Your task to perform on an android device: Search for energizer triple a on amazon.com, select the first entry, and add it to the cart. Image 0: 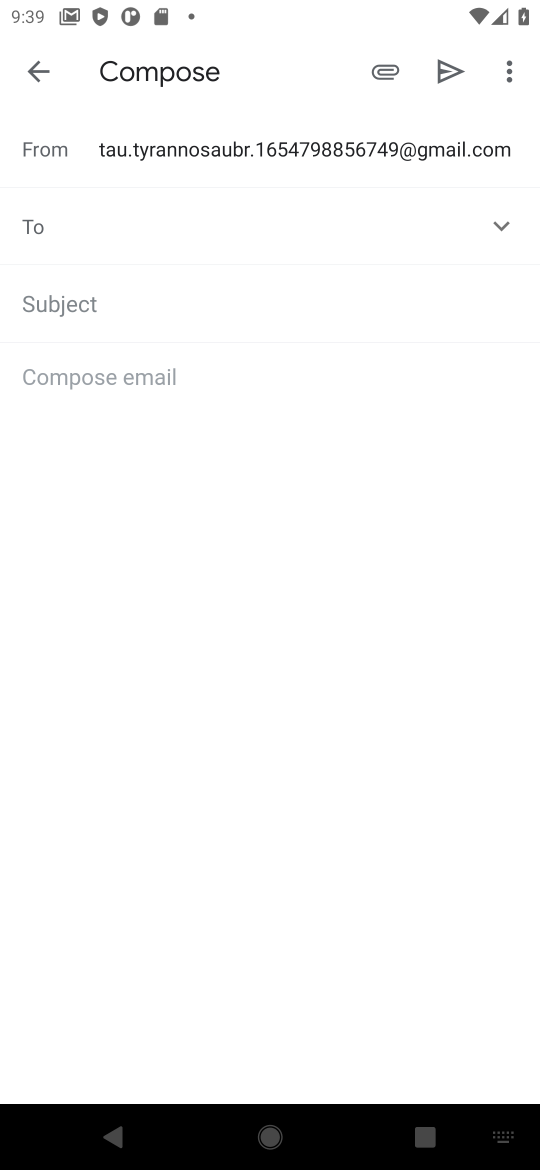
Step 0: press home button
Your task to perform on an android device: Search for energizer triple a on amazon.com, select the first entry, and add it to the cart. Image 1: 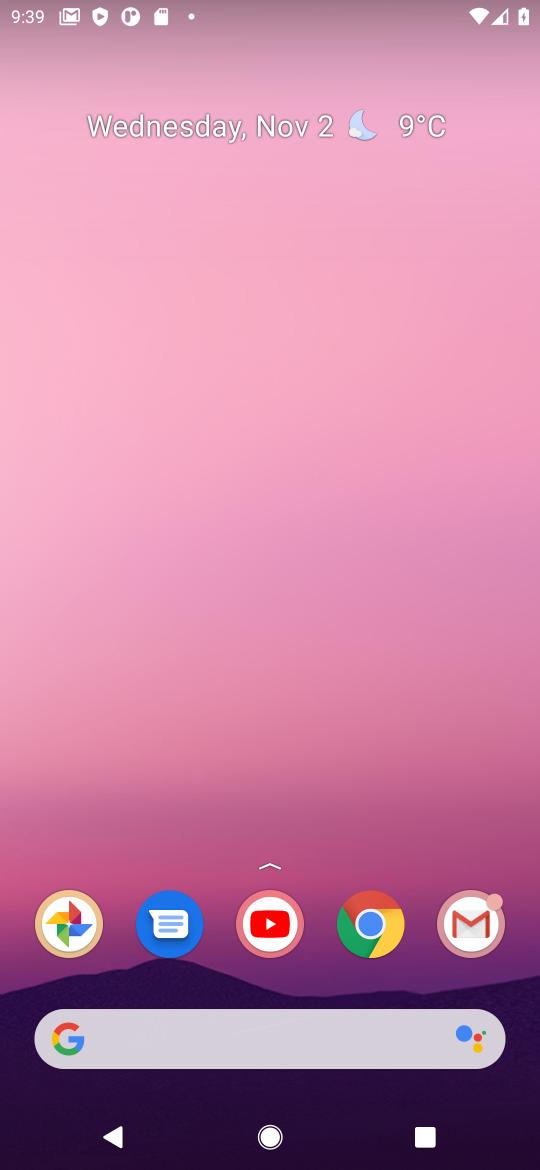
Step 1: click (389, 925)
Your task to perform on an android device: Search for energizer triple a on amazon.com, select the first entry, and add it to the cart. Image 2: 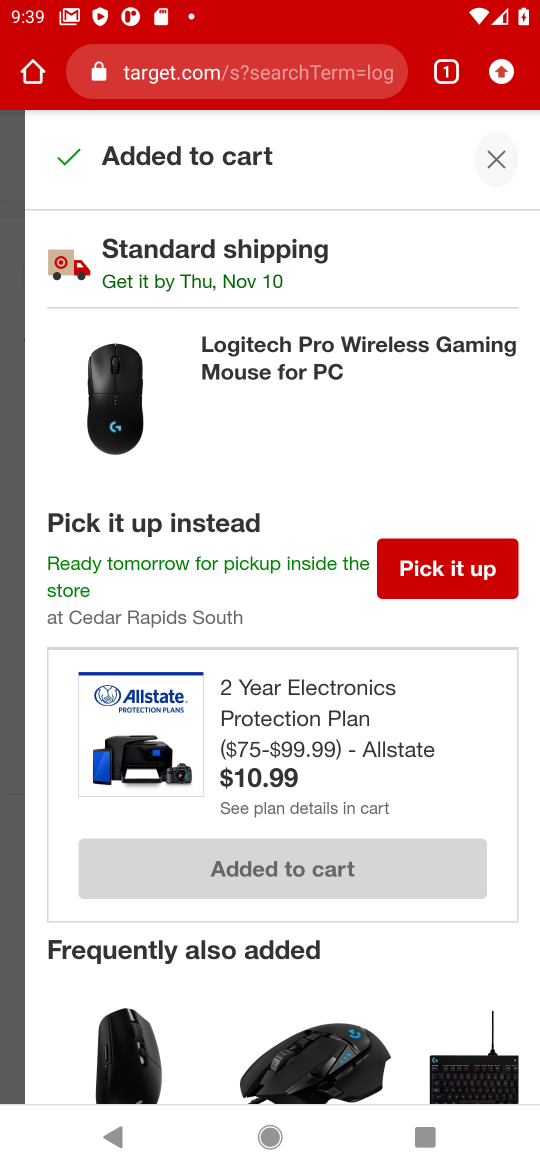
Step 2: click (138, 76)
Your task to perform on an android device: Search for energizer triple a on amazon.com, select the first entry, and add it to the cart. Image 3: 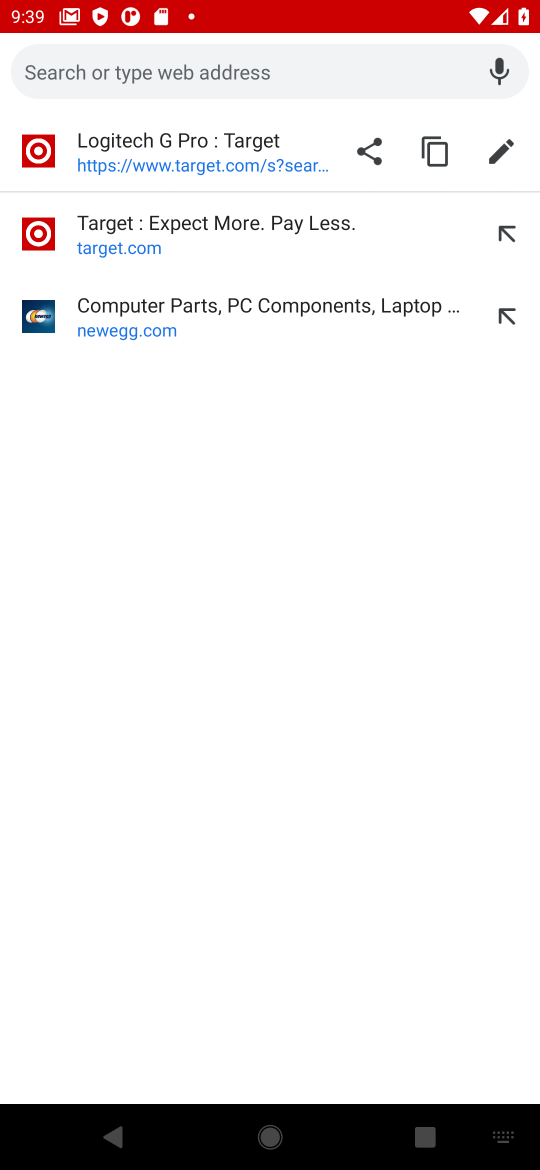
Step 3: type "amazon"
Your task to perform on an android device: Search for energizer triple a on amazon.com, select the first entry, and add it to the cart. Image 4: 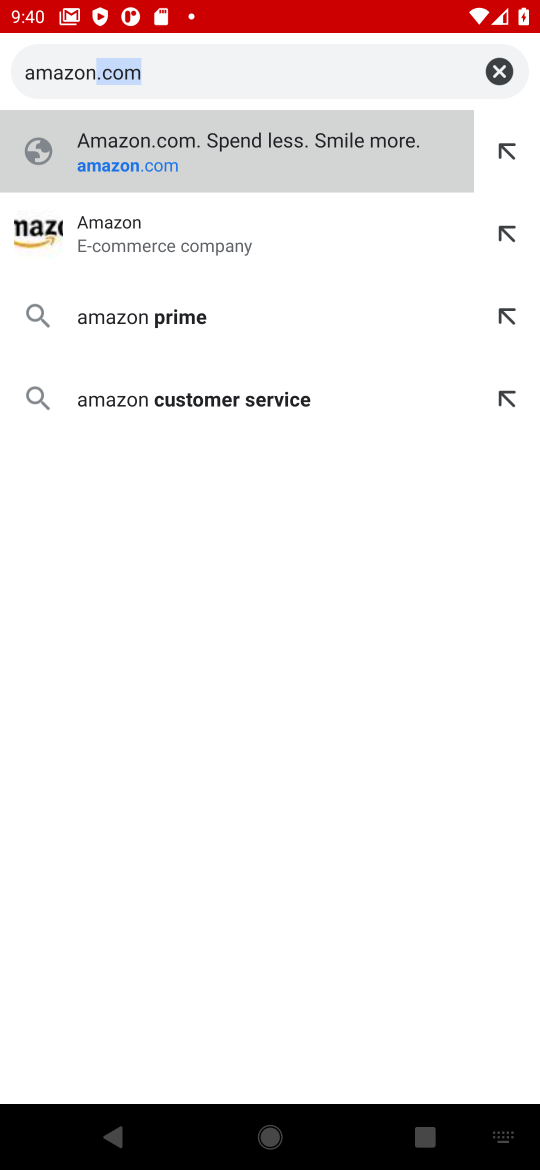
Step 4: type ""
Your task to perform on an android device: Search for energizer triple a on amazon.com, select the first entry, and add it to the cart. Image 5: 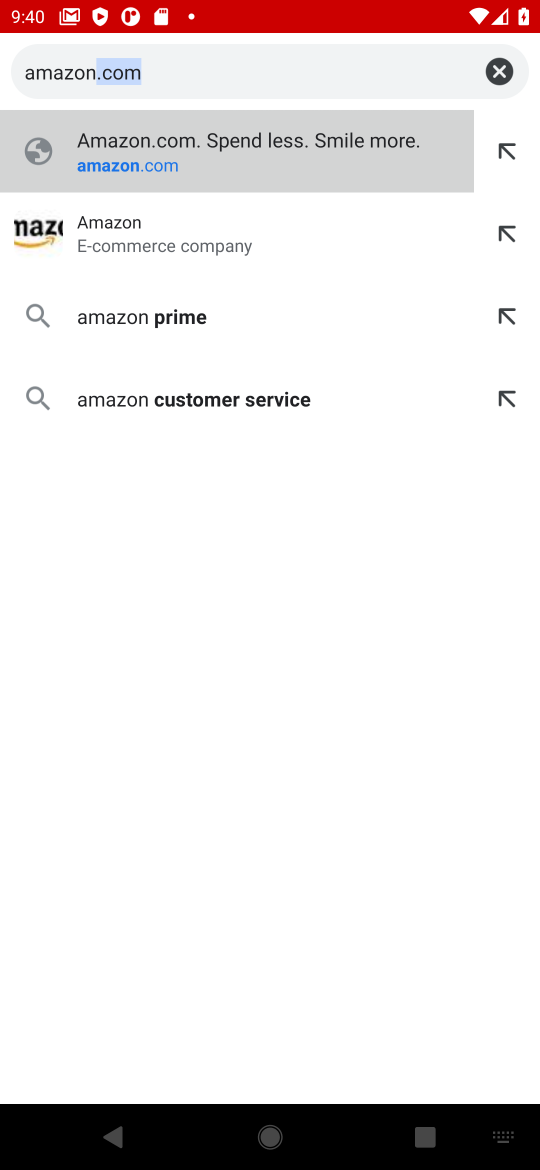
Step 5: click (87, 223)
Your task to perform on an android device: Search for energizer triple a on amazon.com, select the first entry, and add it to the cart. Image 6: 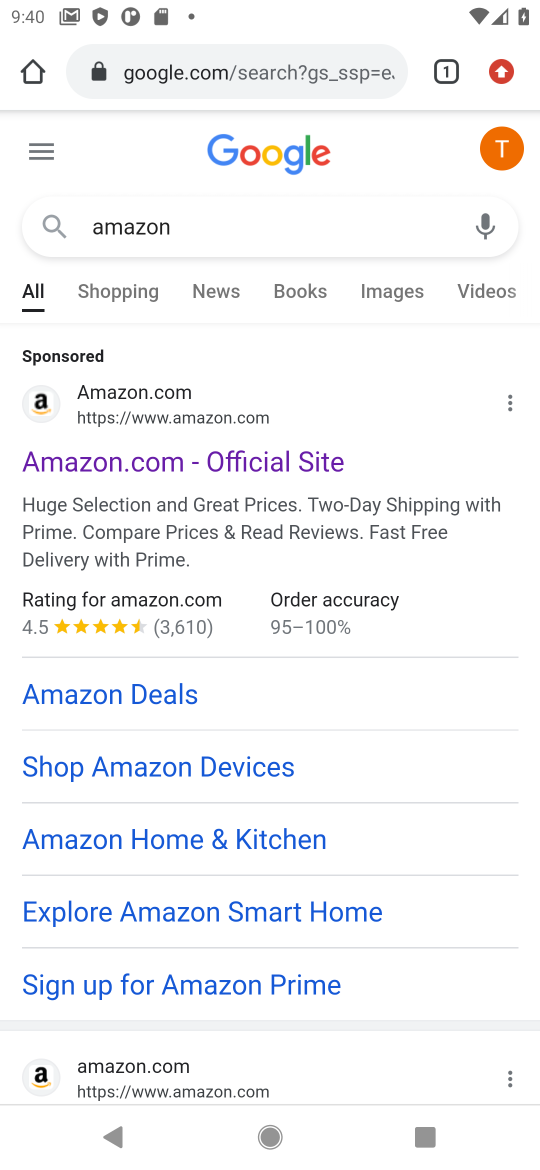
Step 6: click (79, 457)
Your task to perform on an android device: Search for energizer triple a on amazon.com, select the first entry, and add it to the cart. Image 7: 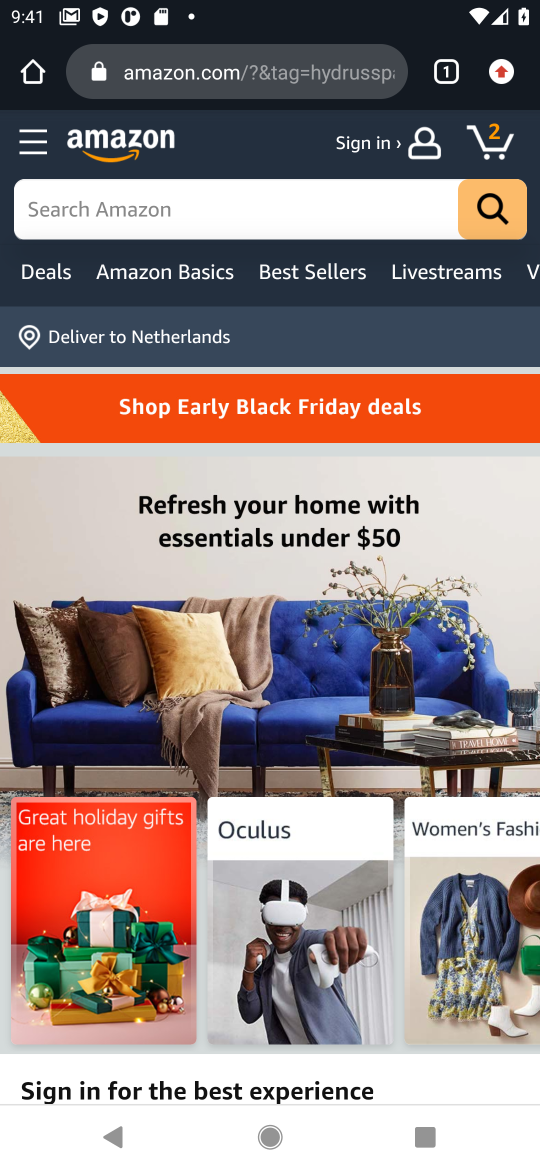
Step 7: click (256, 211)
Your task to perform on an android device: Search for energizer triple a on amazon.com, select the first entry, and add it to the cart. Image 8: 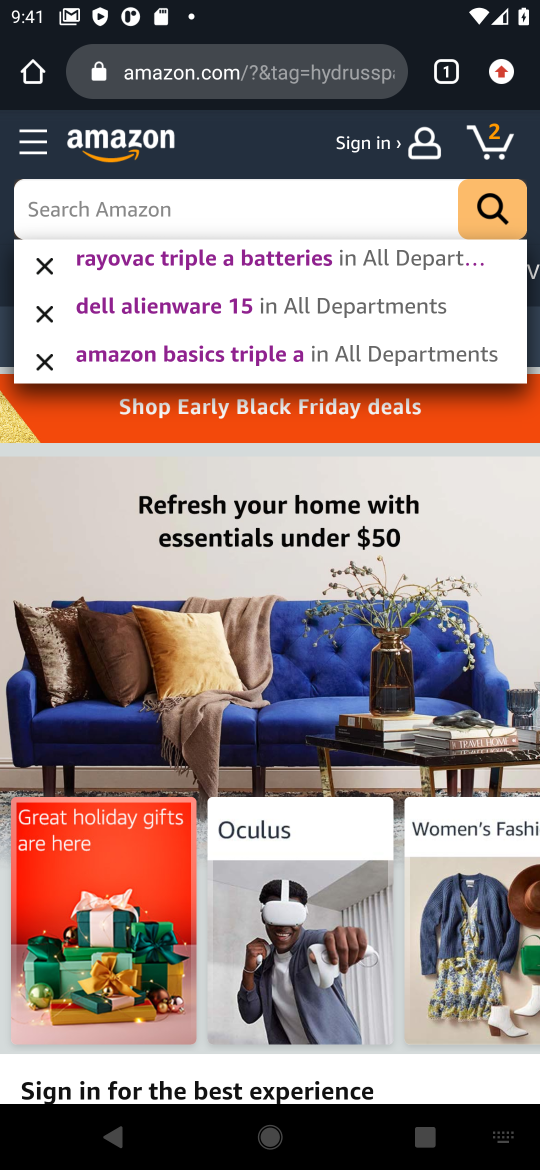
Step 8: type "energizer triple"
Your task to perform on an android device: Search for energizer triple a on amazon.com, select the first entry, and add it to the cart. Image 9: 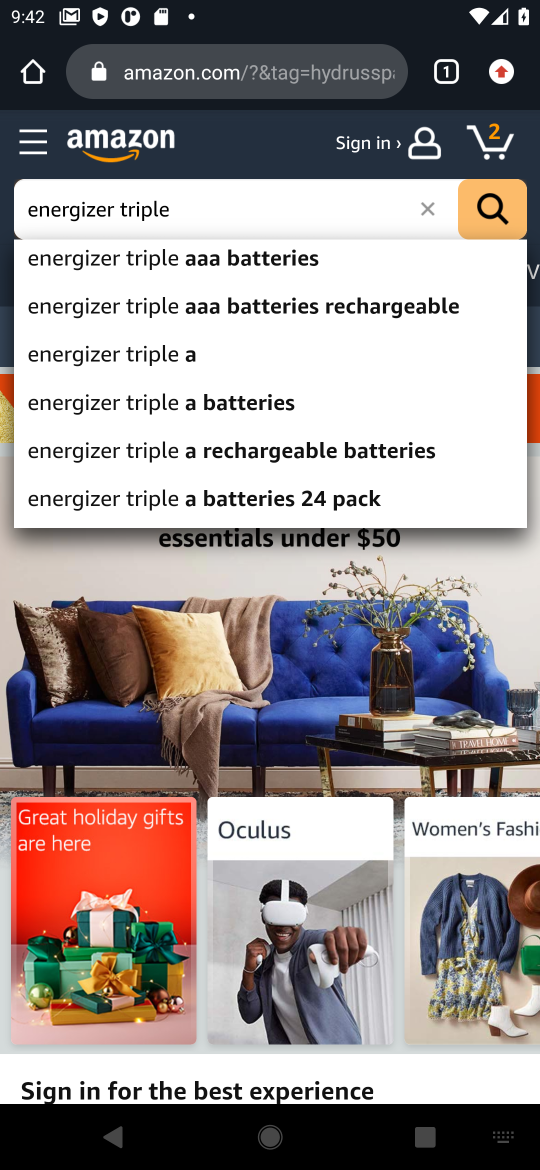
Step 9: click (163, 275)
Your task to perform on an android device: Search for energizer triple a on amazon.com, select the first entry, and add it to the cart. Image 10: 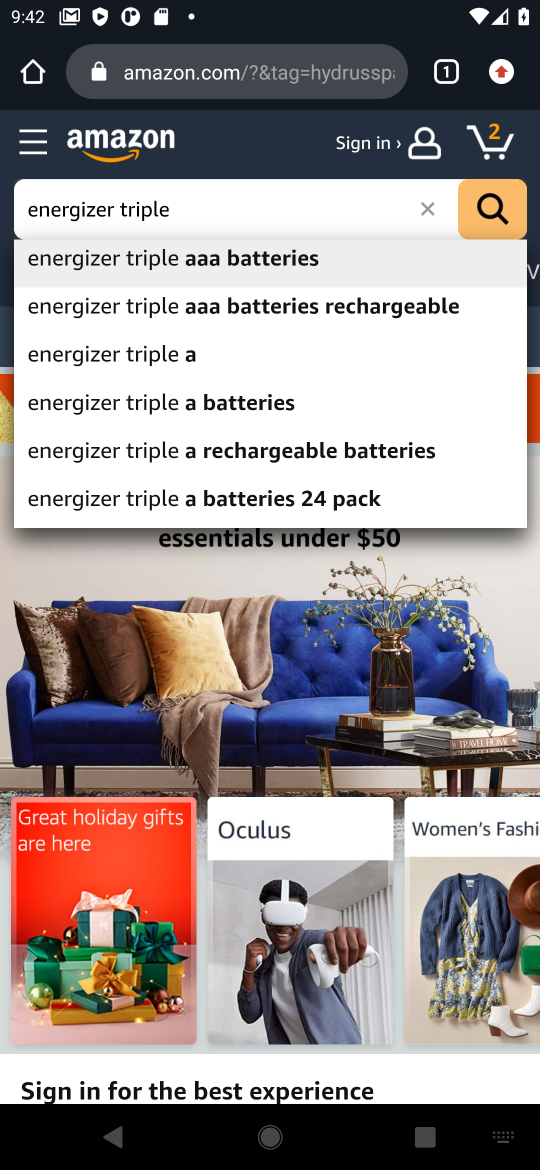
Step 10: click (141, 251)
Your task to perform on an android device: Search for energizer triple a on amazon.com, select the first entry, and add it to the cart. Image 11: 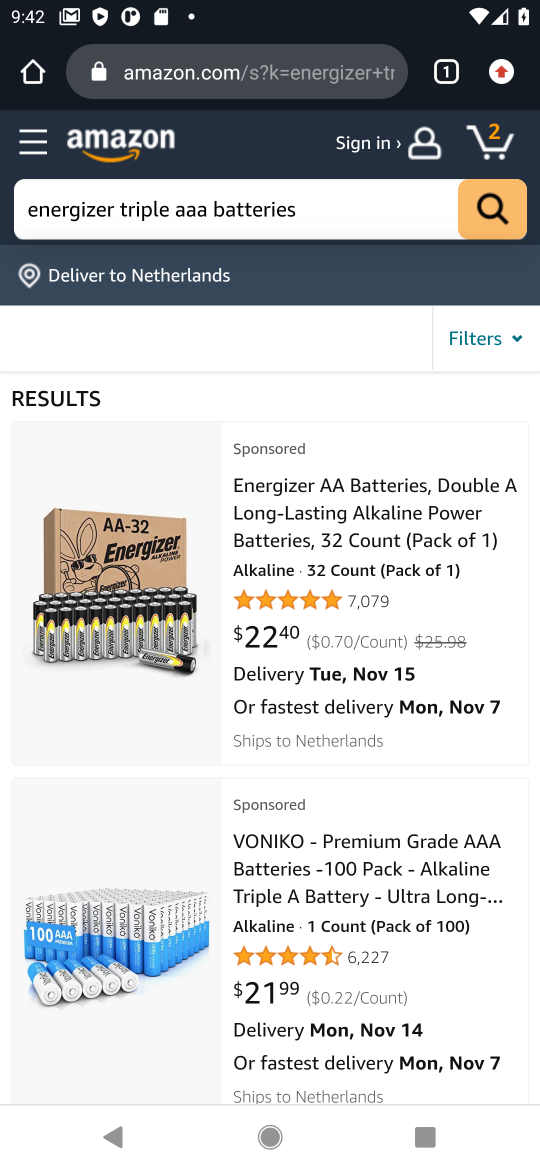
Step 11: drag from (228, 1007) to (226, 508)
Your task to perform on an android device: Search for energizer triple a on amazon.com, select the first entry, and add it to the cart. Image 12: 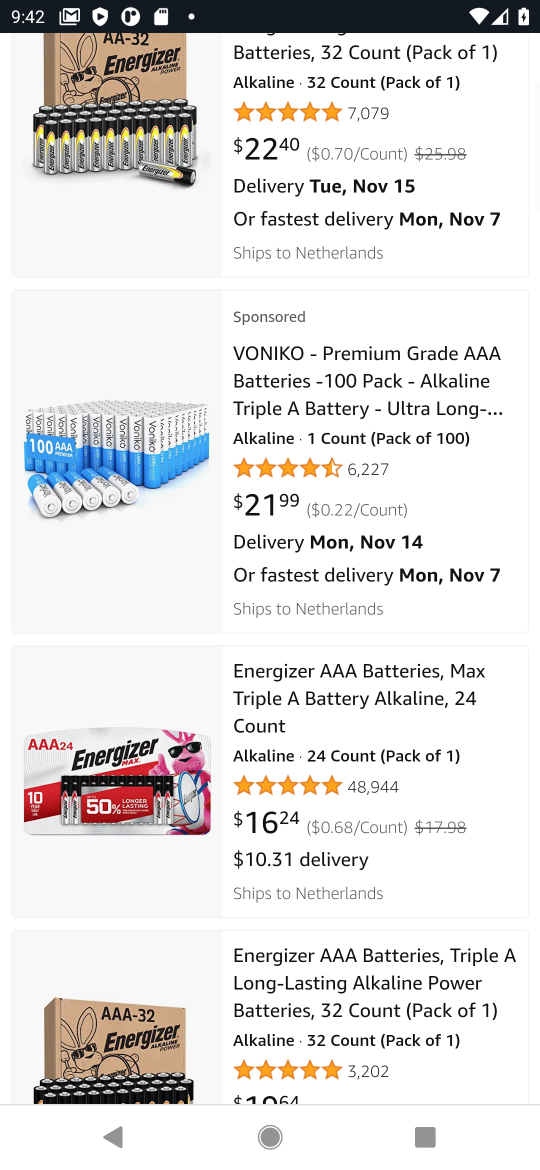
Step 12: click (22, 769)
Your task to perform on an android device: Search for energizer triple a on amazon.com, select the first entry, and add it to the cart. Image 13: 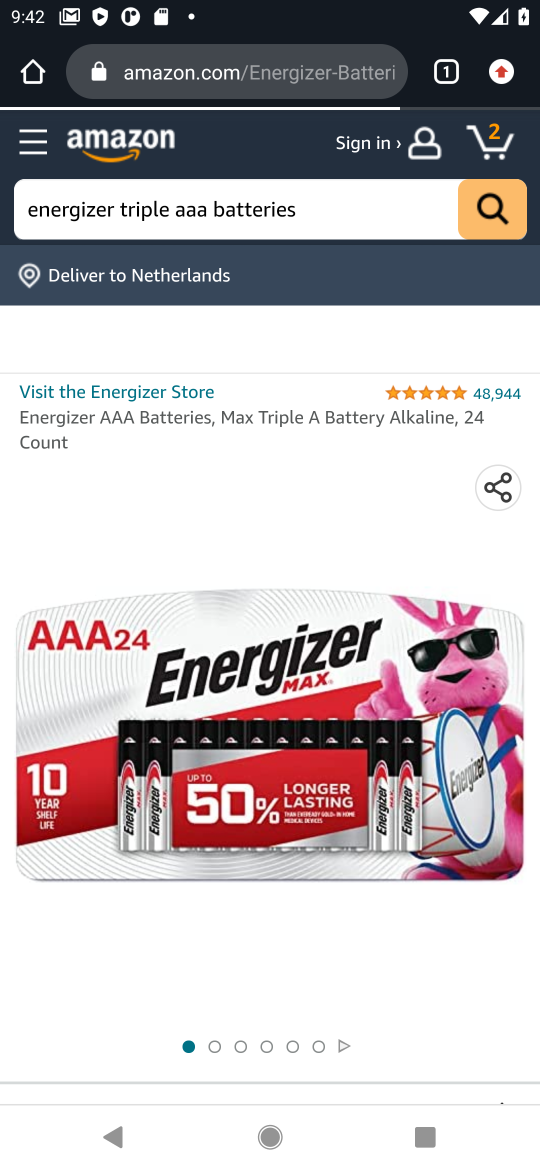
Step 13: drag from (249, 837) to (246, 382)
Your task to perform on an android device: Search for energizer triple a on amazon.com, select the first entry, and add it to the cart. Image 14: 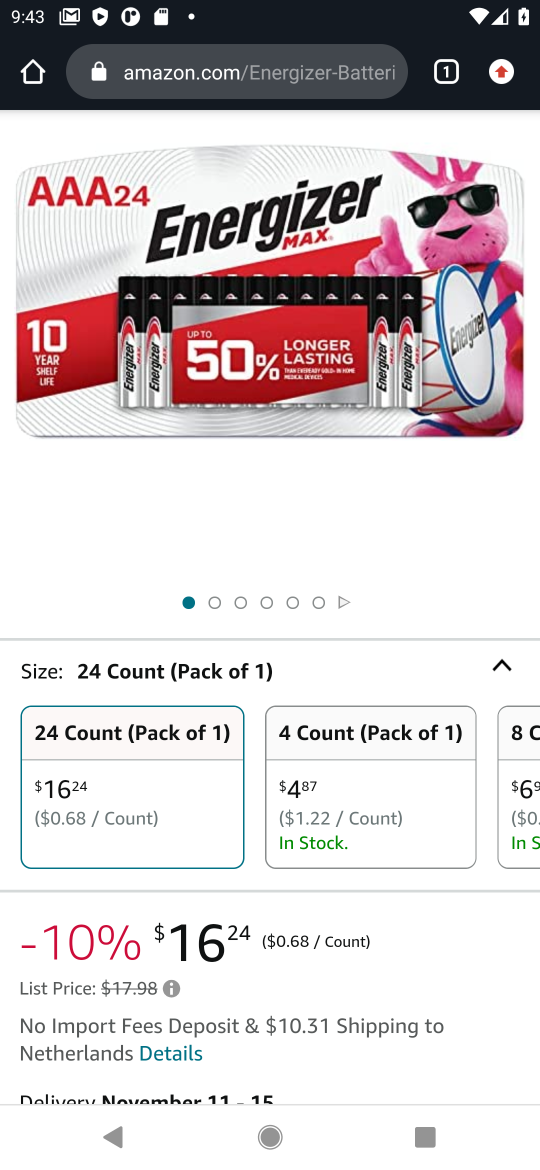
Step 14: drag from (247, 808) to (307, 287)
Your task to perform on an android device: Search for energizer triple a on amazon.com, select the first entry, and add it to the cart. Image 15: 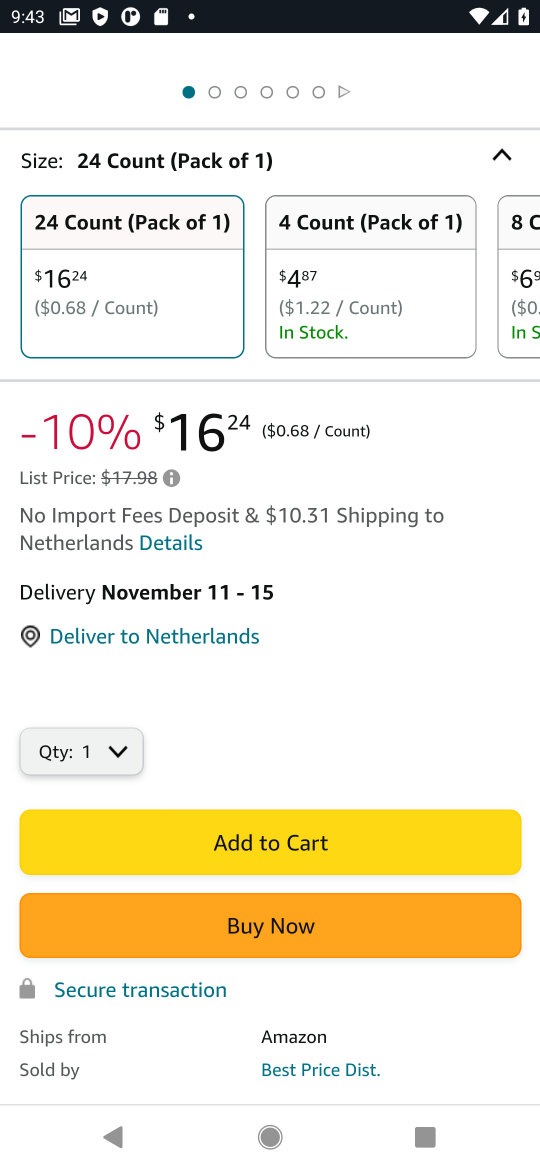
Step 15: click (230, 837)
Your task to perform on an android device: Search for energizer triple a on amazon.com, select the first entry, and add it to the cart. Image 16: 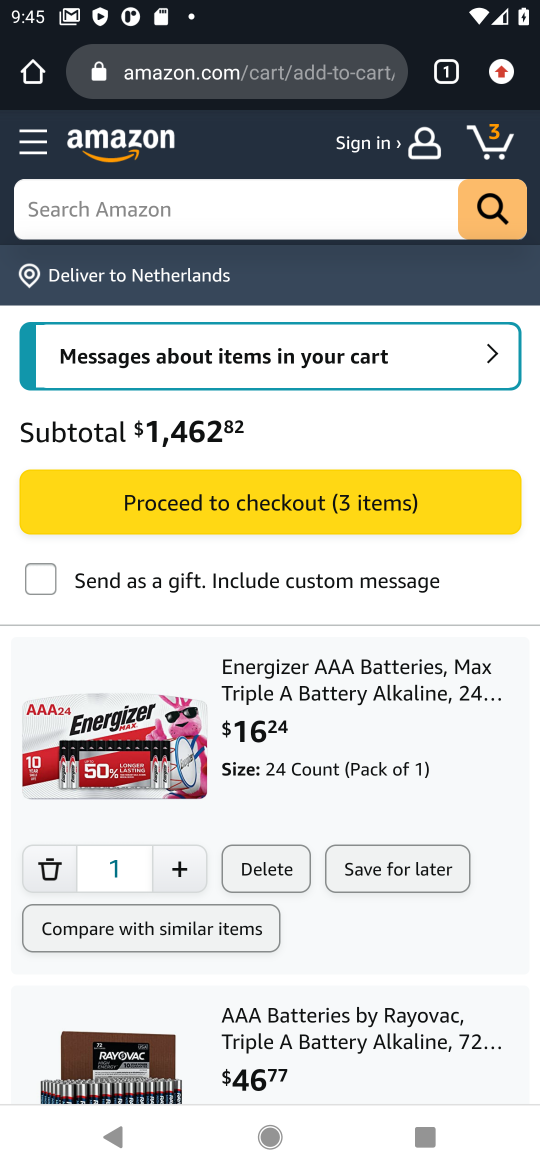
Step 16: task complete